Your task to perform on an android device: allow cookies in the chrome app Image 0: 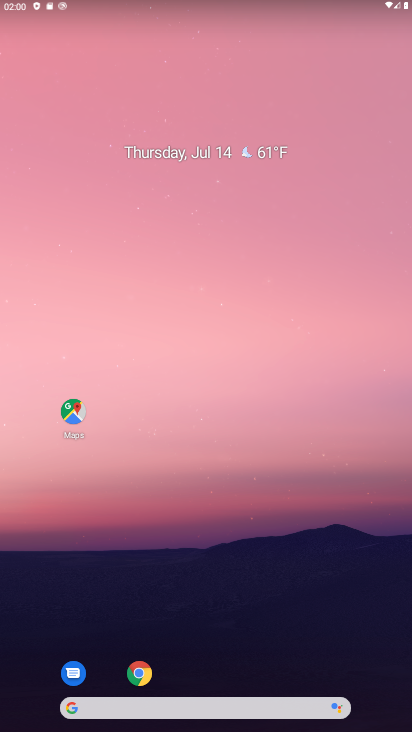
Step 0: click (133, 669)
Your task to perform on an android device: allow cookies in the chrome app Image 1: 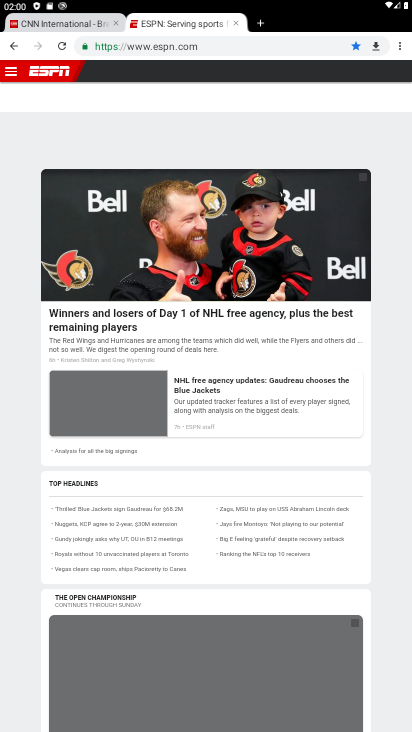
Step 1: click (394, 52)
Your task to perform on an android device: allow cookies in the chrome app Image 2: 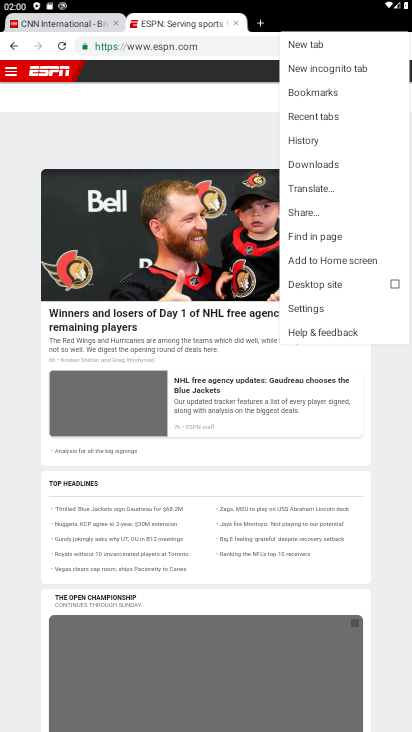
Step 2: click (321, 302)
Your task to perform on an android device: allow cookies in the chrome app Image 3: 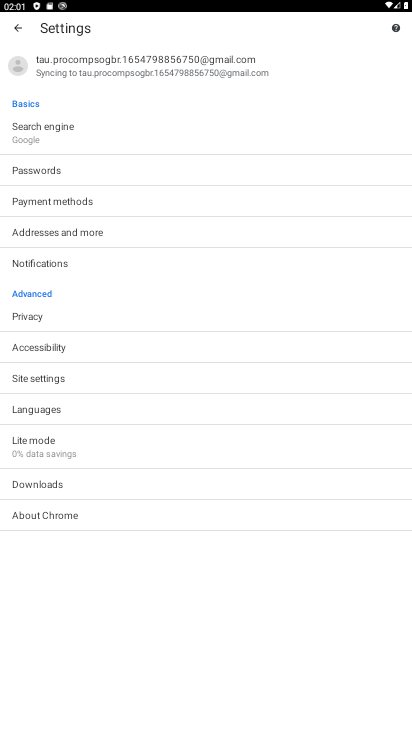
Step 3: click (103, 371)
Your task to perform on an android device: allow cookies in the chrome app Image 4: 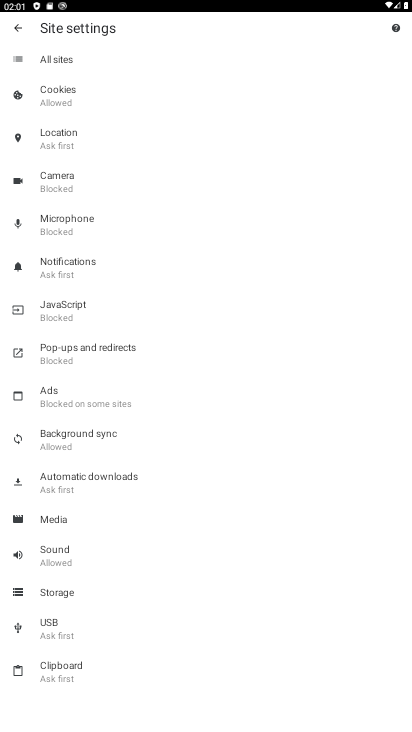
Step 4: click (121, 105)
Your task to perform on an android device: allow cookies in the chrome app Image 5: 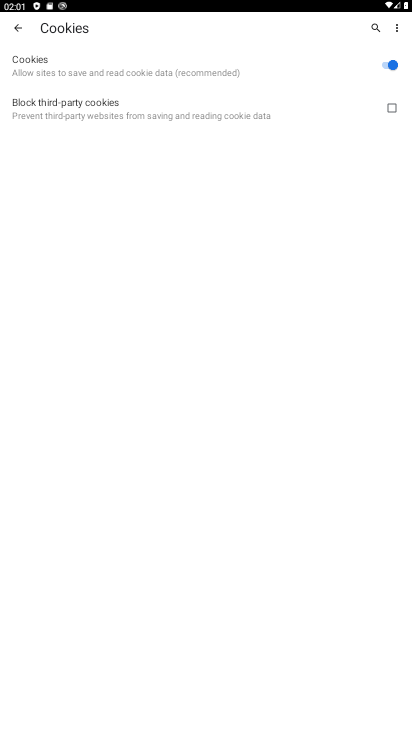
Step 5: task complete